Your task to perform on an android device: Open wifi settings Image 0: 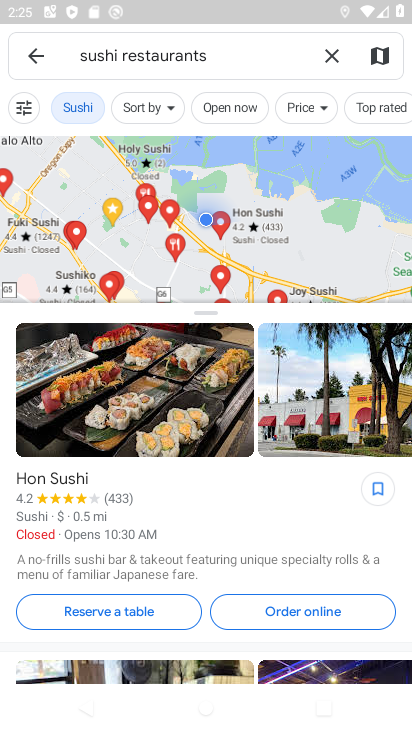
Step 0: press home button
Your task to perform on an android device: Open wifi settings Image 1: 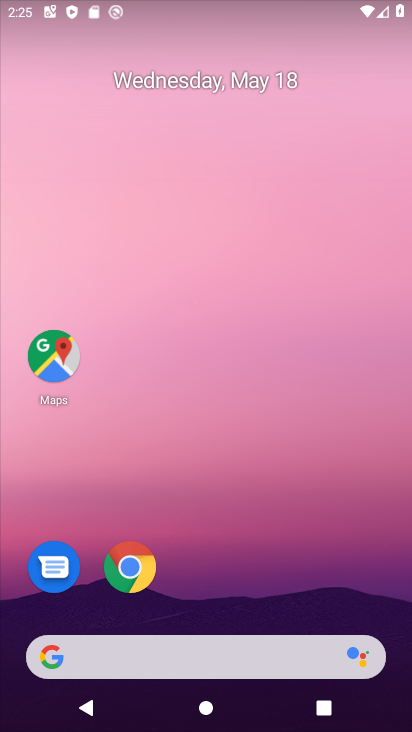
Step 1: drag from (175, 573) to (239, 113)
Your task to perform on an android device: Open wifi settings Image 2: 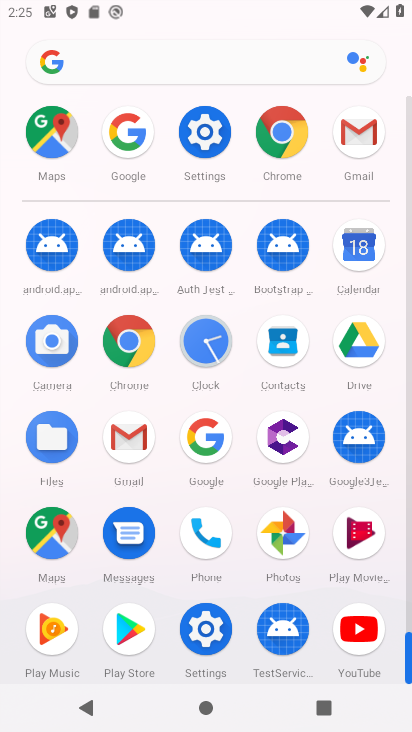
Step 2: click (201, 133)
Your task to perform on an android device: Open wifi settings Image 3: 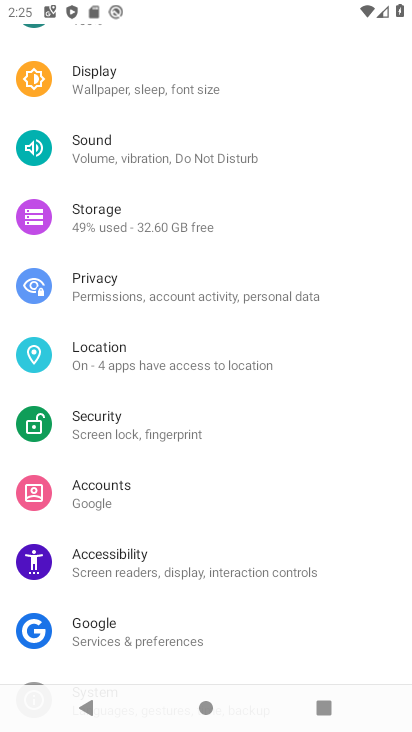
Step 3: drag from (151, 136) to (104, 573)
Your task to perform on an android device: Open wifi settings Image 4: 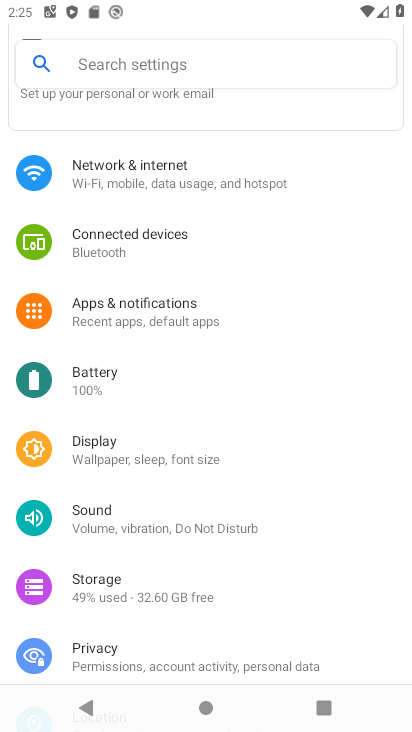
Step 4: click (169, 175)
Your task to perform on an android device: Open wifi settings Image 5: 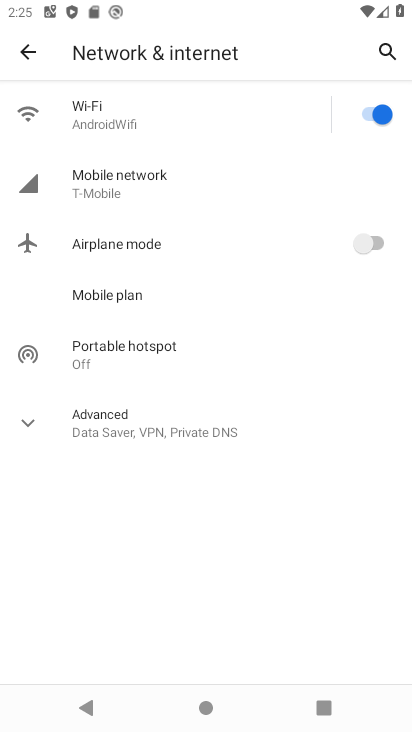
Step 5: click (140, 118)
Your task to perform on an android device: Open wifi settings Image 6: 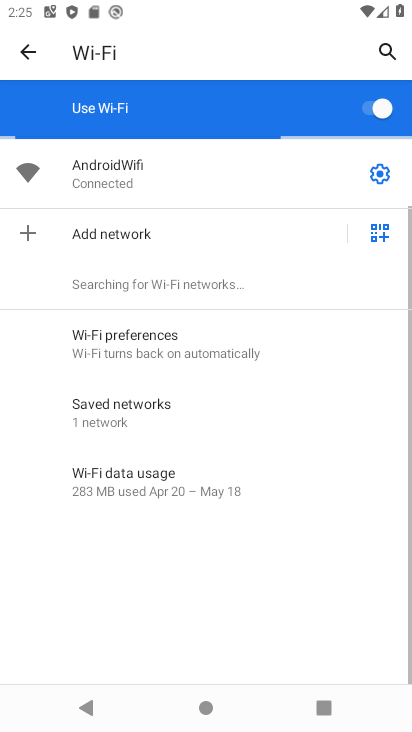
Step 6: task complete